Your task to perform on an android device: Go to Yahoo.com Image 0: 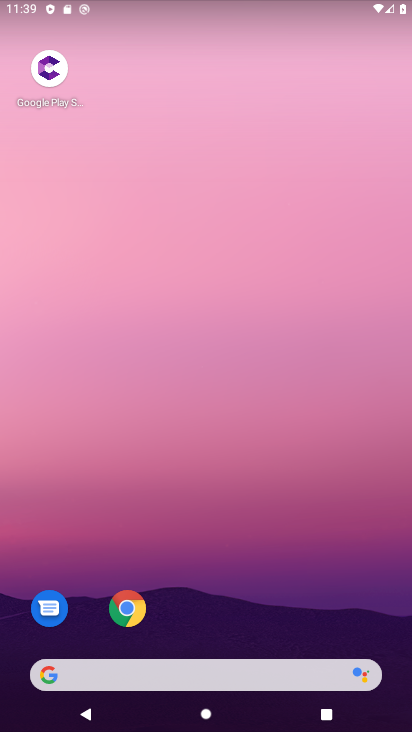
Step 0: drag from (255, 529) to (192, 2)
Your task to perform on an android device: Go to Yahoo.com Image 1: 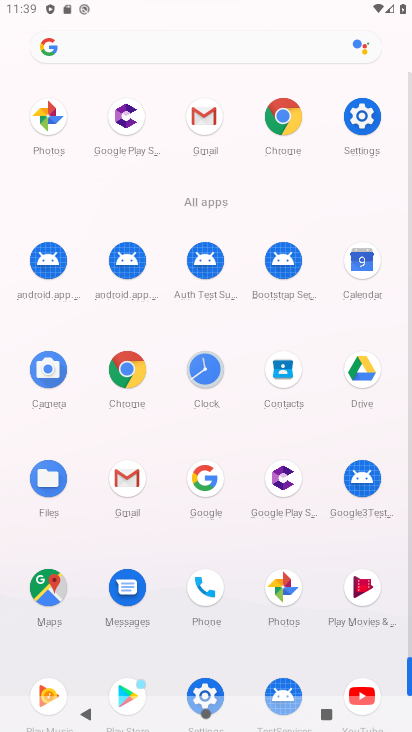
Step 1: click (123, 368)
Your task to perform on an android device: Go to Yahoo.com Image 2: 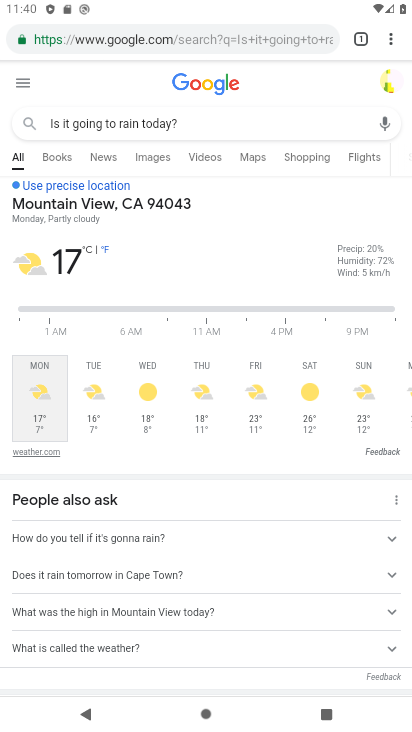
Step 2: click (185, 23)
Your task to perform on an android device: Go to Yahoo.com Image 3: 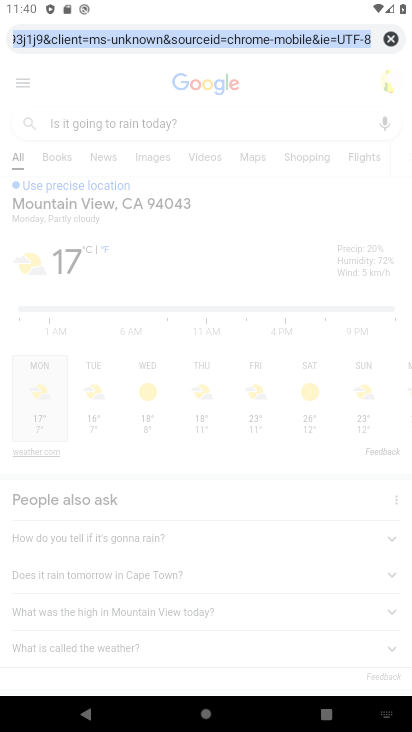
Step 3: click (387, 44)
Your task to perform on an android device: Go to Yahoo.com Image 4: 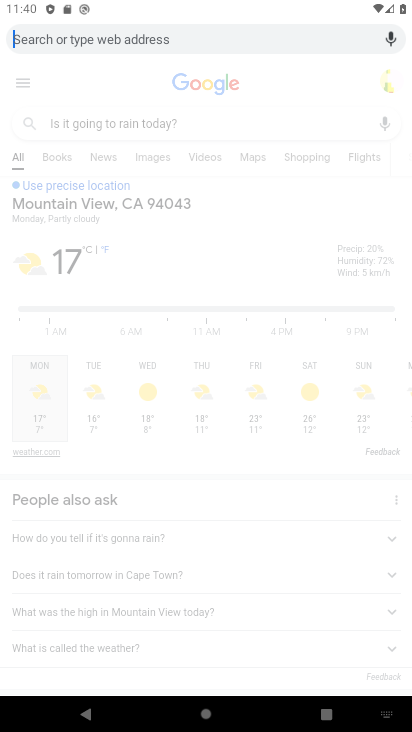
Step 4: type "Yahoo.com"
Your task to perform on an android device: Go to Yahoo.com Image 5: 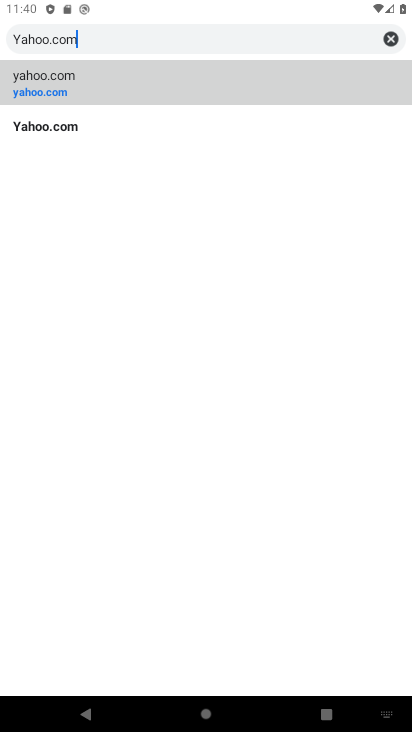
Step 5: type ""
Your task to perform on an android device: Go to Yahoo.com Image 6: 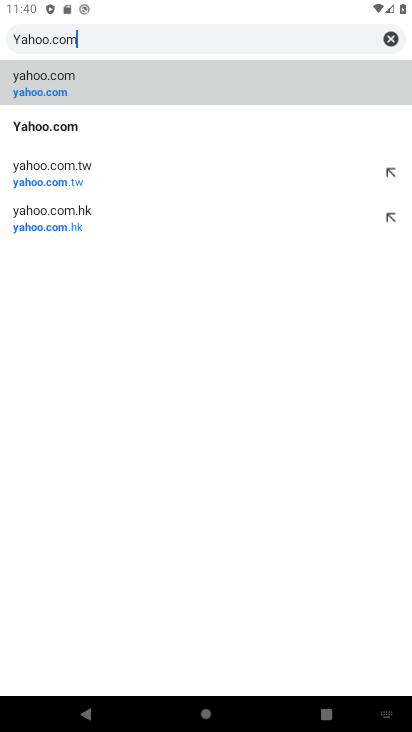
Step 6: click (143, 87)
Your task to perform on an android device: Go to Yahoo.com Image 7: 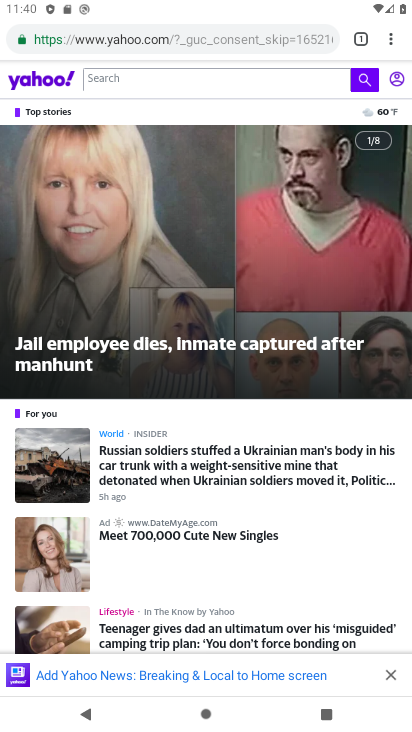
Step 7: task complete